Your task to perform on an android device: move an email to a new category in the gmail app Image 0: 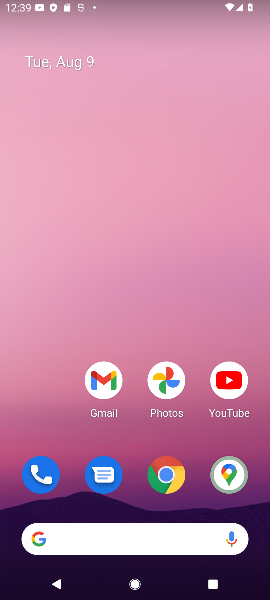
Step 0: click (106, 385)
Your task to perform on an android device: move an email to a new category in the gmail app Image 1: 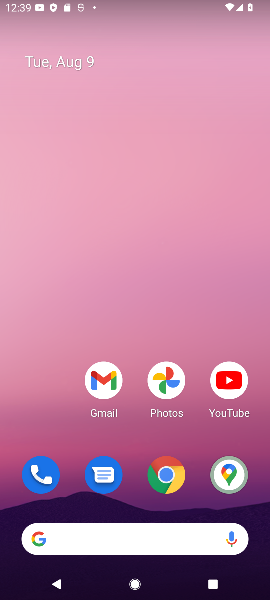
Step 1: click (106, 385)
Your task to perform on an android device: move an email to a new category in the gmail app Image 2: 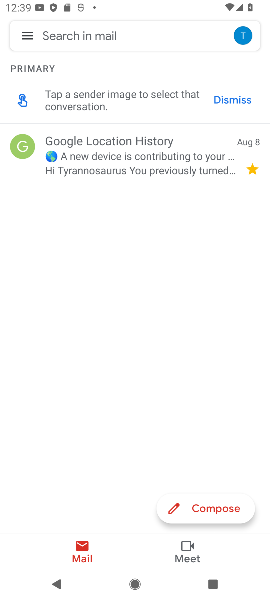
Step 2: click (92, 138)
Your task to perform on an android device: move an email to a new category in the gmail app Image 3: 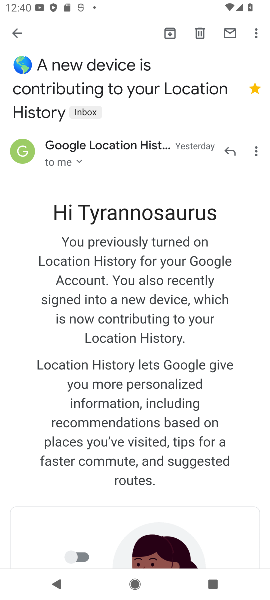
Step 3: click (256, 33)
Your task to perform on an android device: move an email to a new category in the gmail app Image 4: 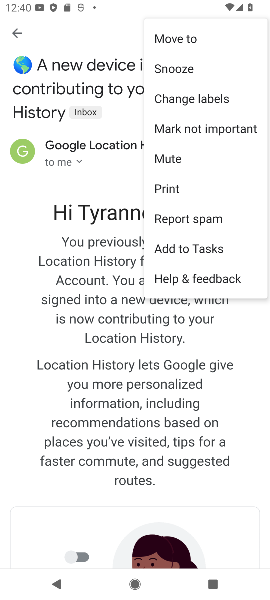
Step 4: click (194, 138)
Your task to perform on an android device: move an email to a new category in the gmail app Image 5: 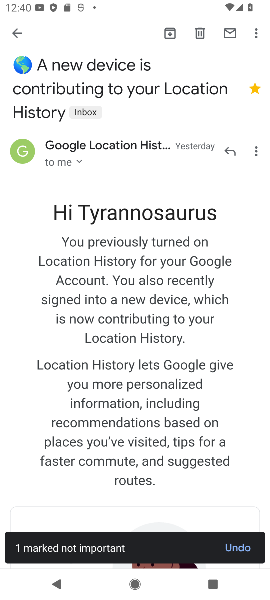
Step 5: task complete